Your task to perform on an android device: open sync settings in chrome Image 0: 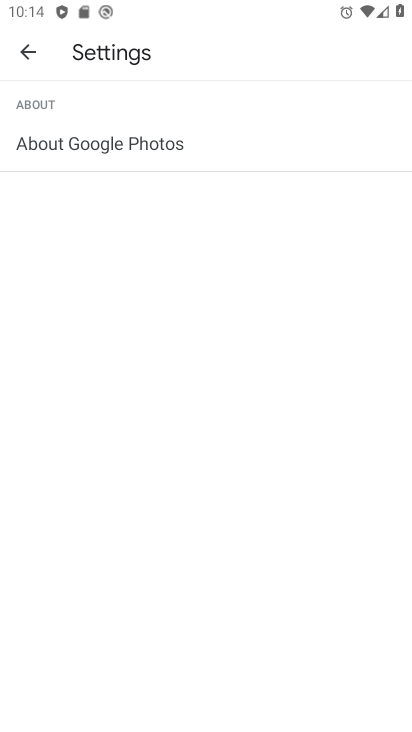
Step 0: press home button
Your task to perform on an android device: open sync settings in chrome Image 1: 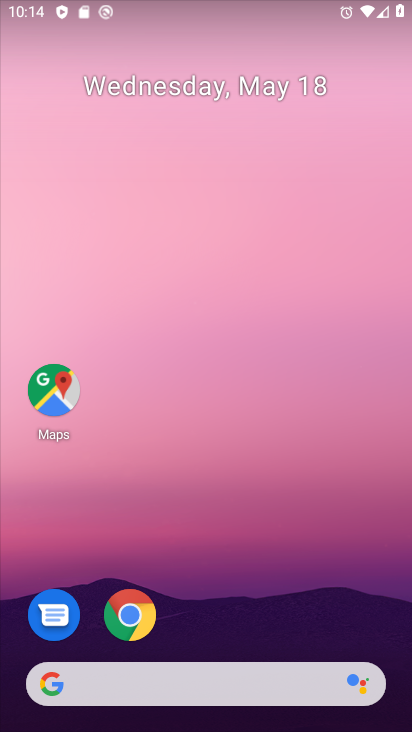
Step 1: click (127, 613)
Your task to perform on an android device: open sync settings in chrome Image 2: 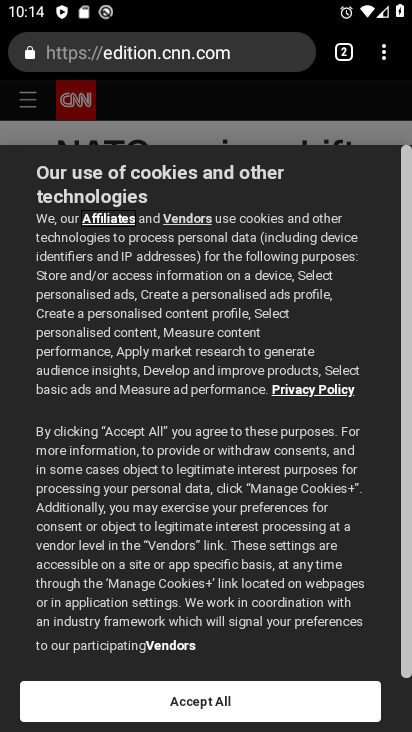
Step 2: click (383, 46)
Your task to perform on an android device: open sync settings in chrome Image 3: 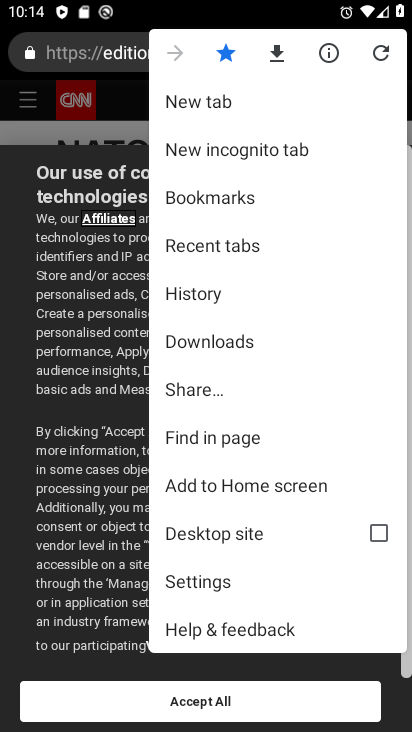
Step 3: click (198, 587)
Your task to perform on an android device: open sync settings in chrome Image 4: 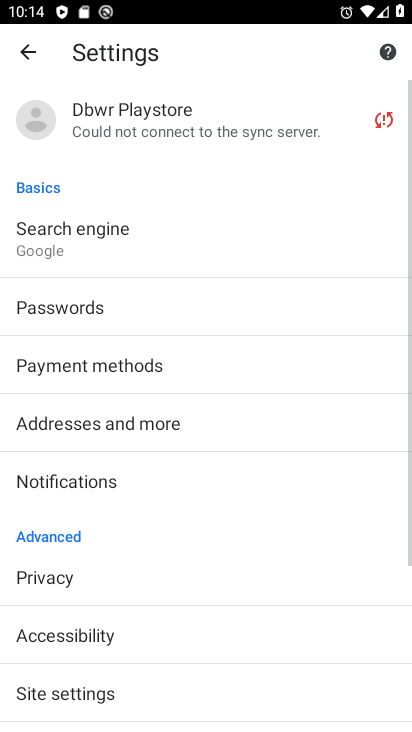
Step 4: click (146, 124)
Your task to perform on an android device: open sync settings in chrome Image 5: 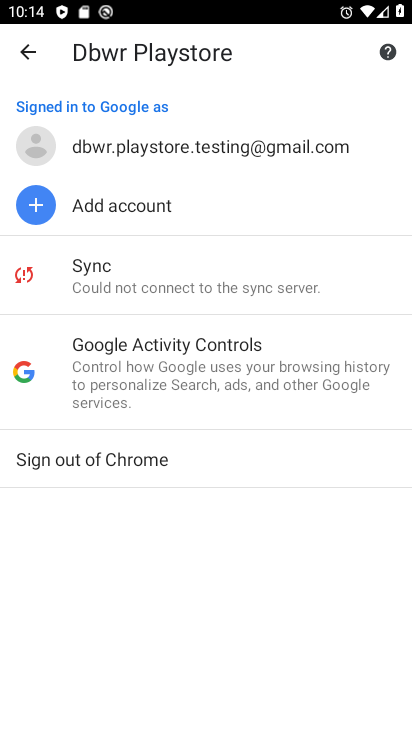
Step 5: click (85, 281)
Your task to perform on an android device: open sync settings in chrome Image 6: 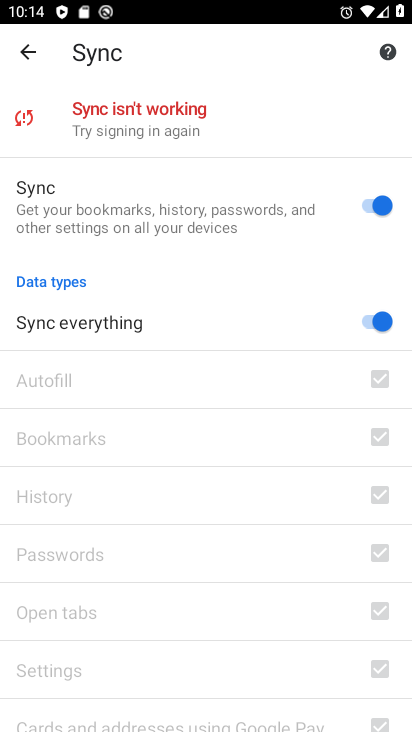
Step 6: task complete